Your task to perform on an android device: check google app version Image 0: 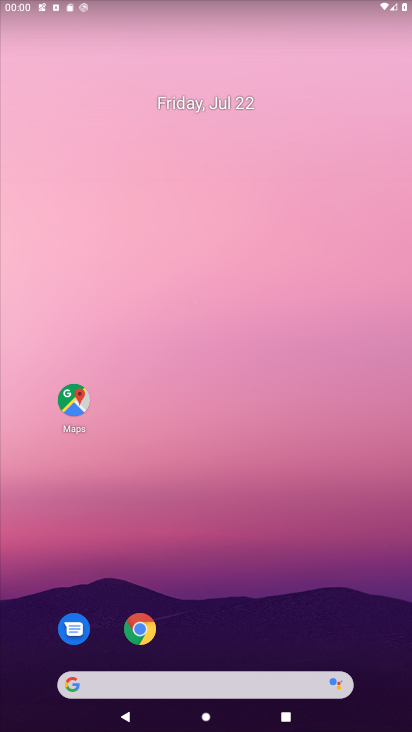
Step 0: drag from (259, 500) to (241, 120)
Your task to perform on an android device: check google app version Image 1: 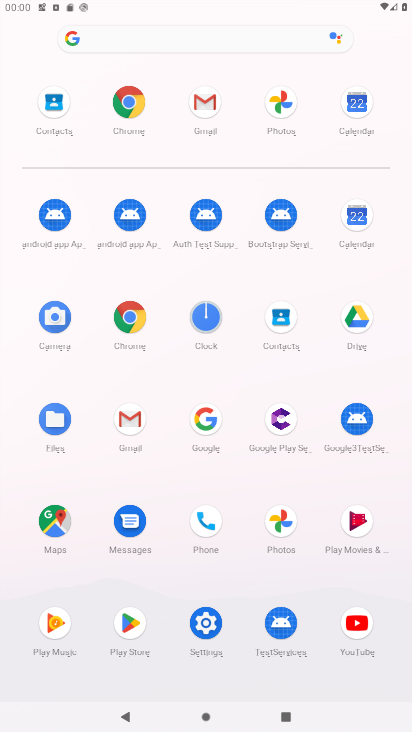
Step 1: click (208, 422)
Your task to perform on an android device: check google app version Image 2: 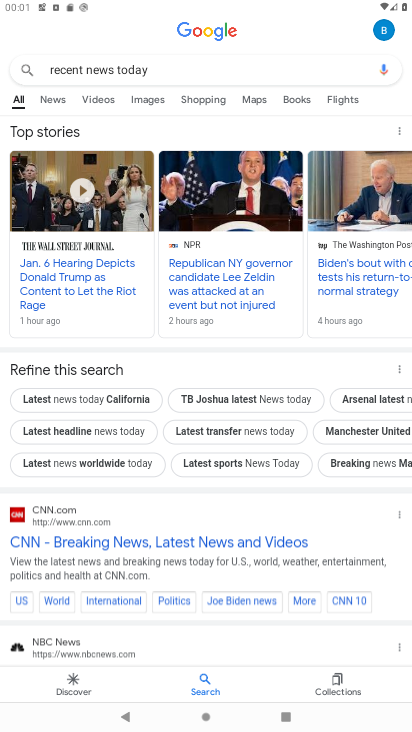
Step 2: click (380, 25)
Your task to perform on an android device: check google app version Image 3: 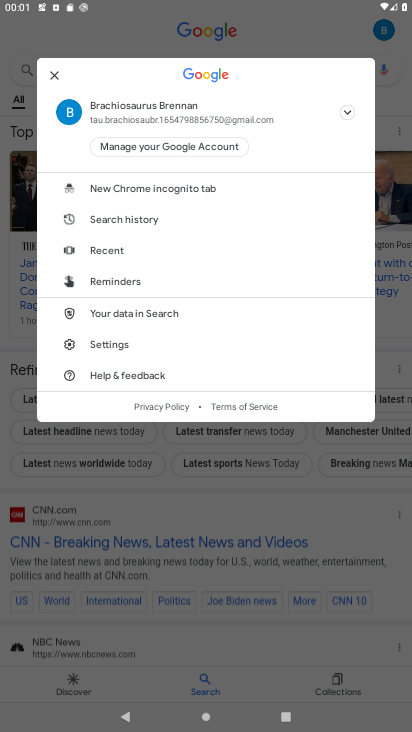
Step 3: click (85, 346)
Your task to perform on an android device: check google app version Image 4: 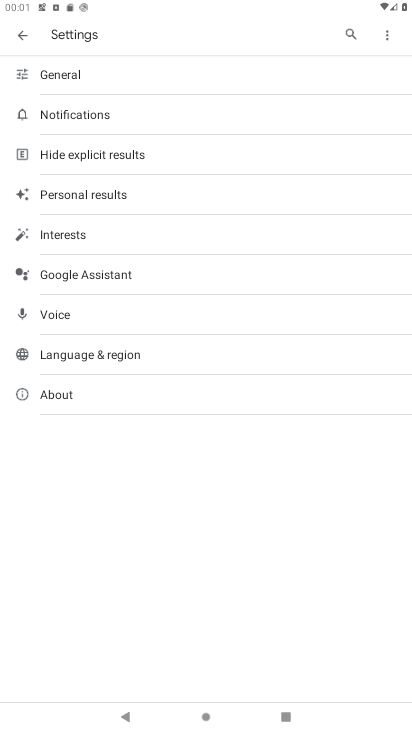
Step 4: click (153, 400)
Your task to perform on an android device: check google app version Image 5: 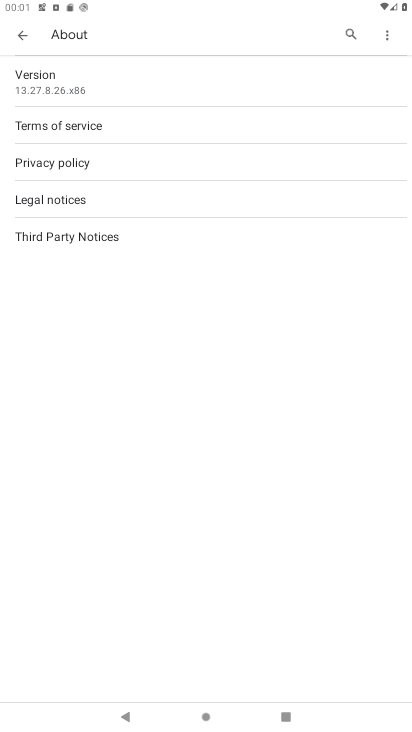
Step 5: click (120, 90)
Your task to perform on an android device: check google app version Image 6: 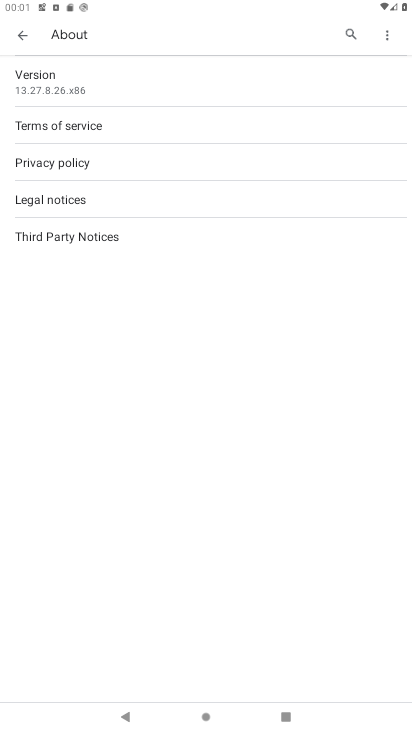
Step 6: task complete